Your task to perform on an android device: Open privacy settings Image 0: 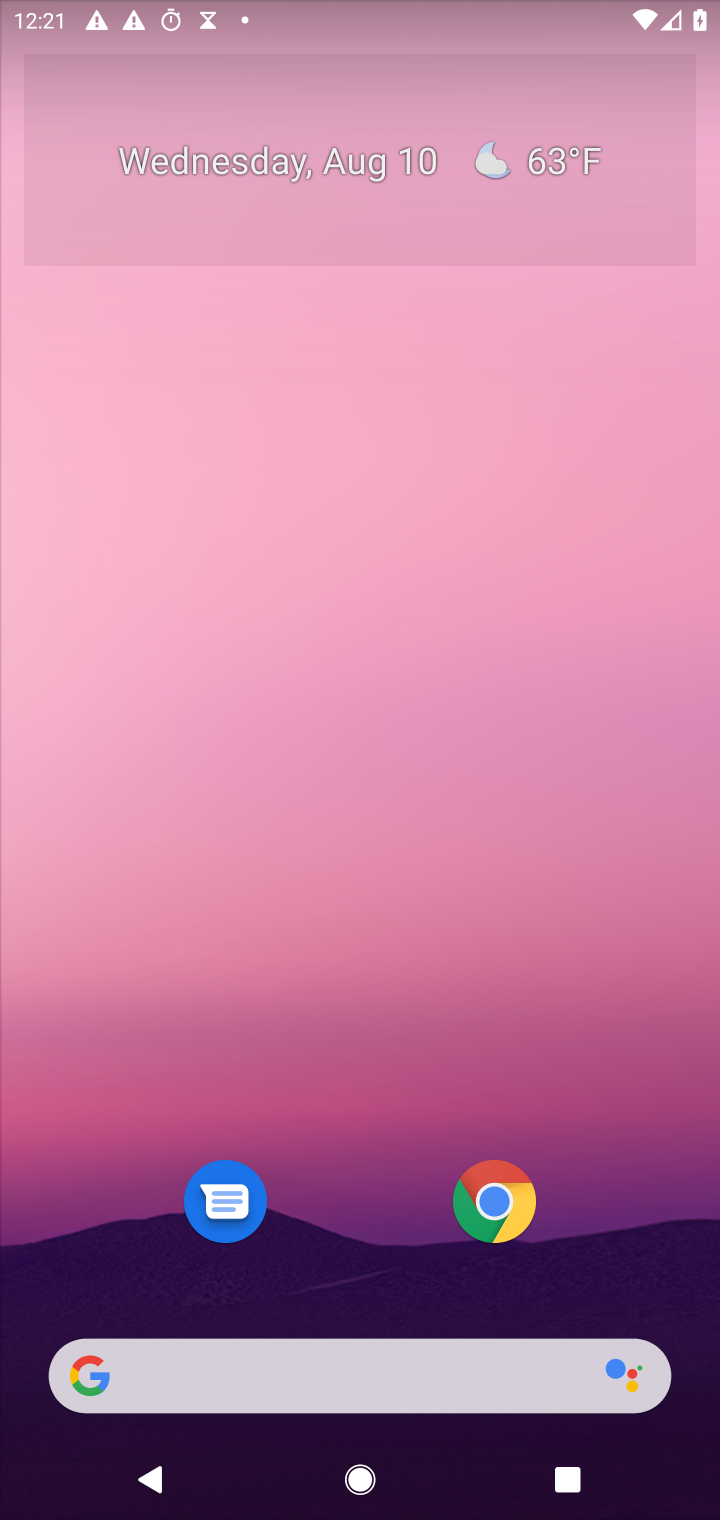
Step 0: press home button
Your task to perform on an android device: Open privacy settings Image 1: 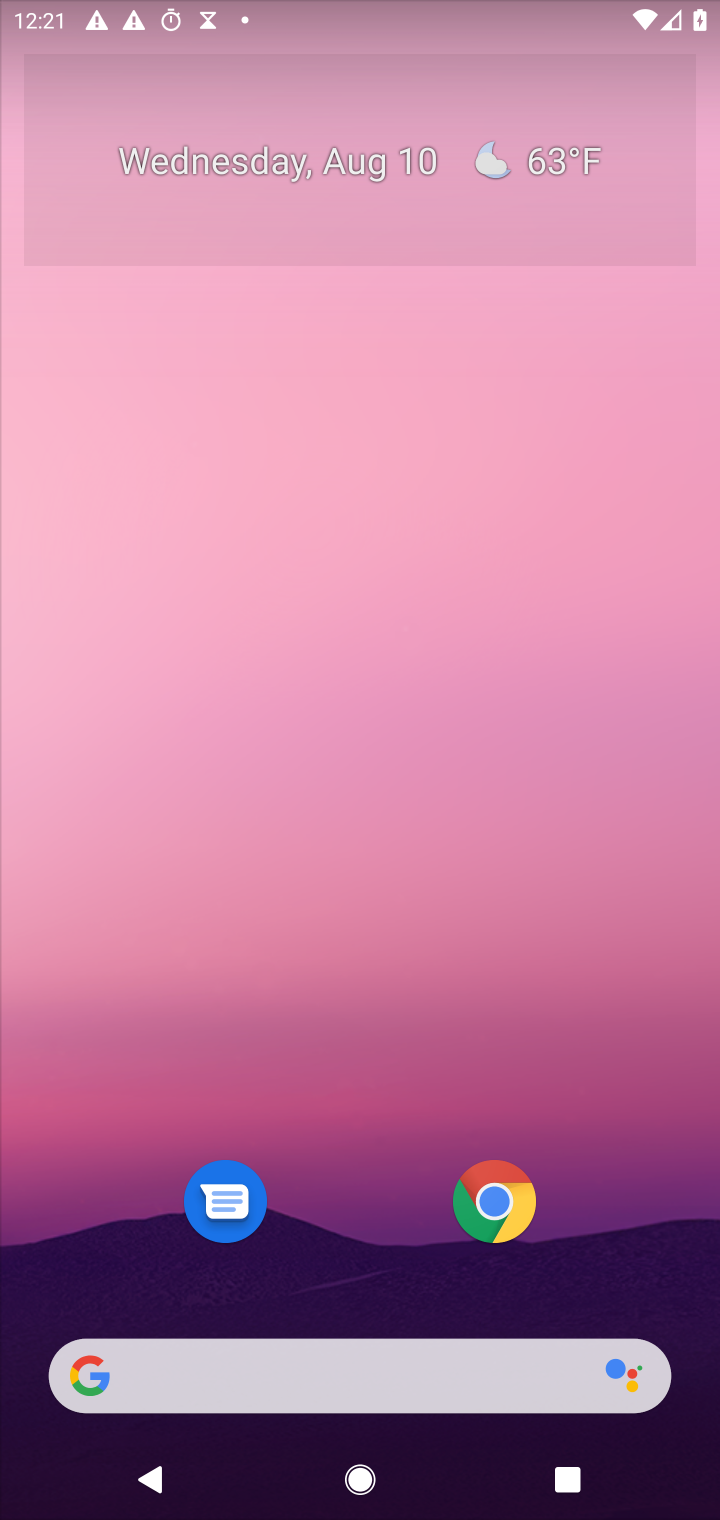
Step 1: drag from (627, 1213) to (633, 134)
Your task to perform on an android device: Open privacy settings Image 2: 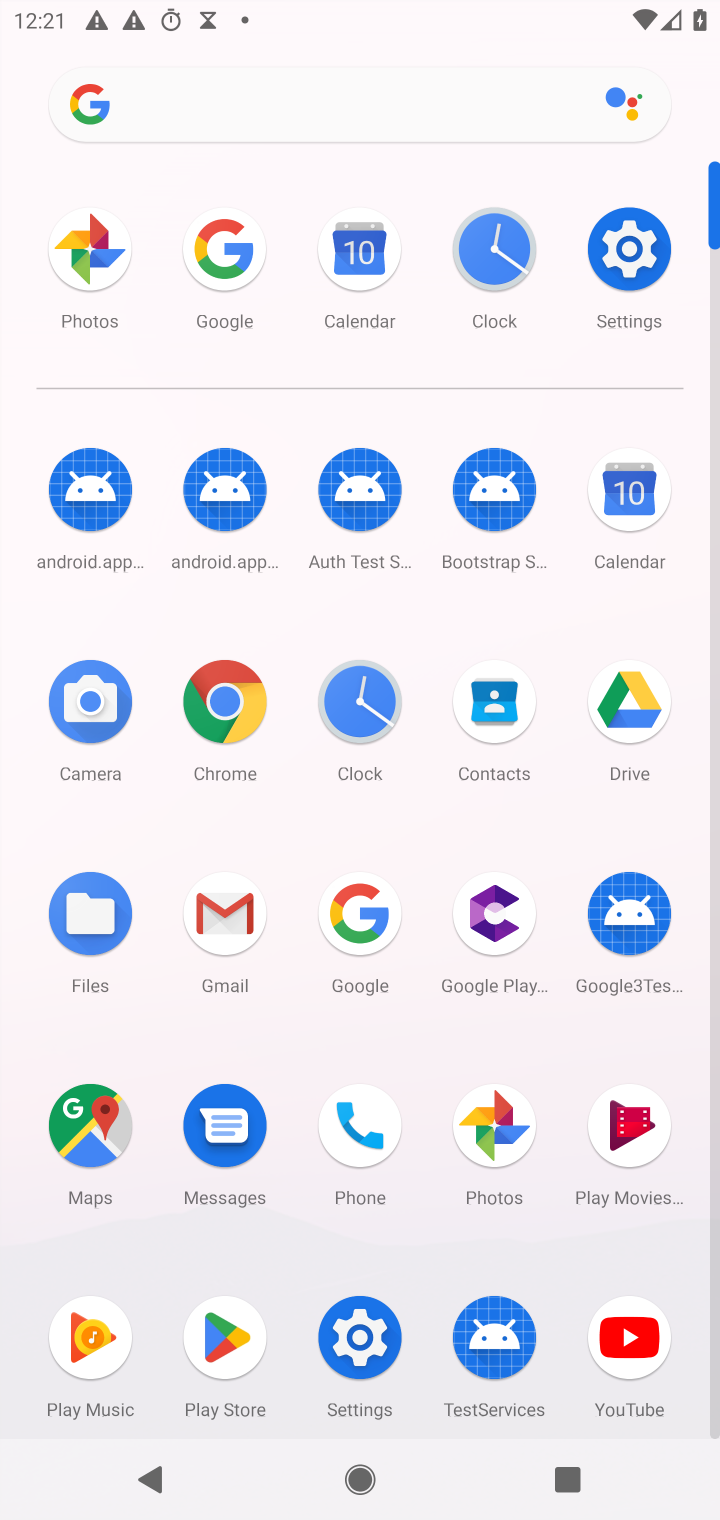
Step 2: click (626, 249)
Your task to perform on an android device: Open privacy settings Image 3: 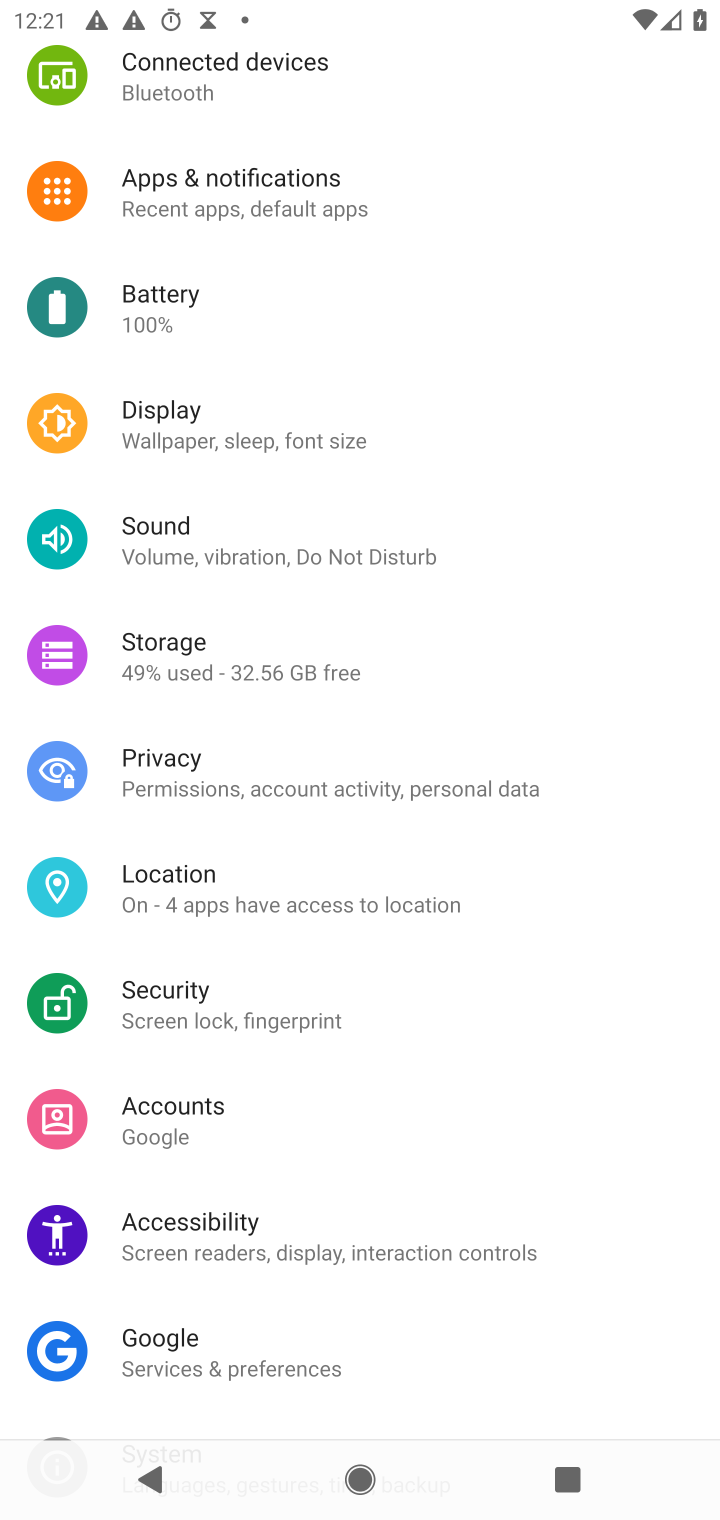
Step 3: click (277, 760)
Your task to perform on an android device: Open privacy settings Image 4: 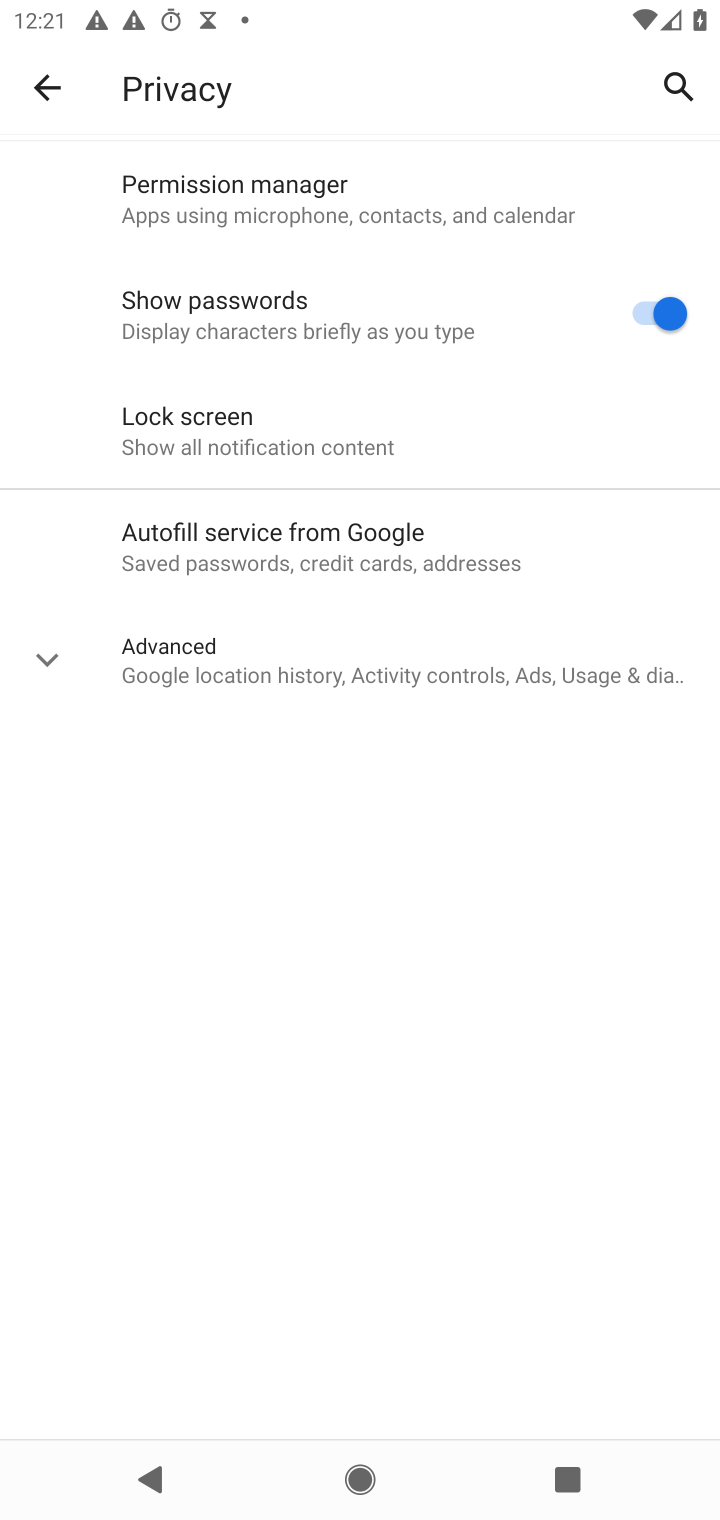
Step 4: task complete